Your task to perform on an android device: Go to Google Image 0: 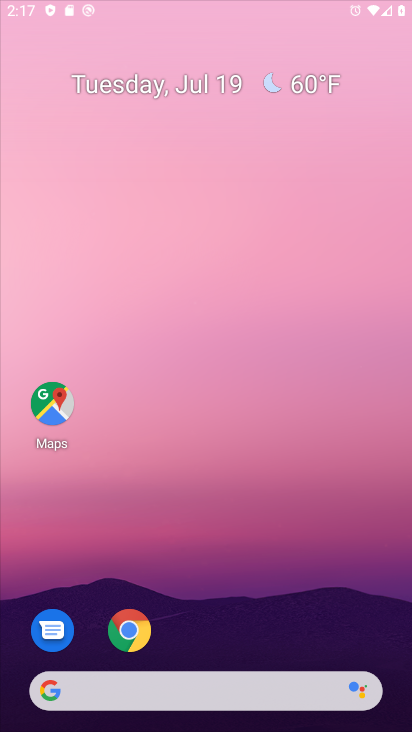
Step 0: drag from (171, 546) to (121, 181)
Your task to perform on an android device: Go to Google Image 1: 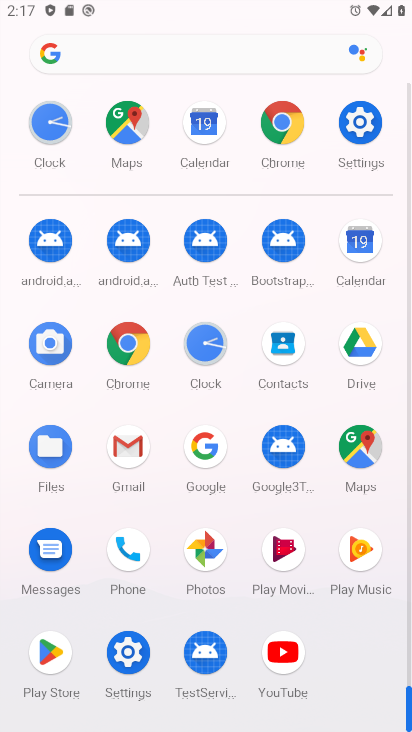
Step 1: drag from (203, 646) to (122, 158)
Your task to perform on an android device: Go to Google Image 2: 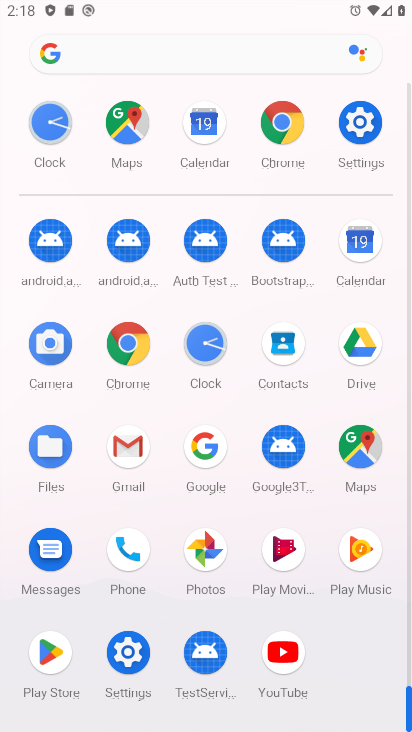
Step 2: click (207, 453)
Your task to perform on an android device: Go to Google Image 3: 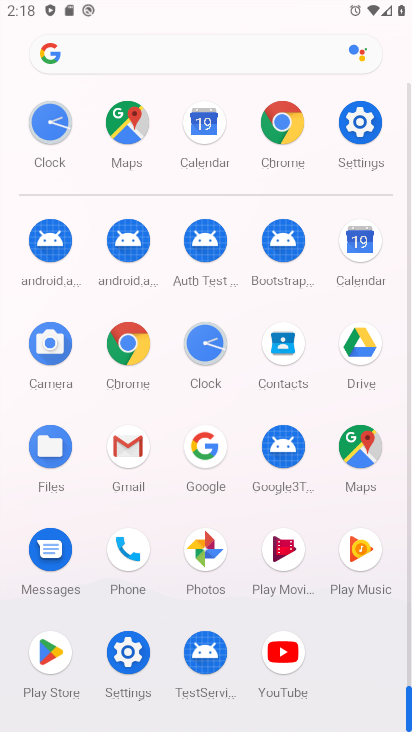
Step 3: click (206, 455)
Your task to perform on an android device: Go to Google Image 4: 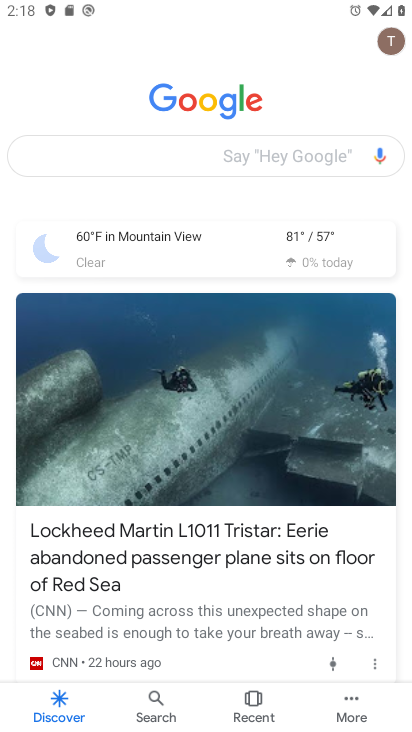
Step 4: task complete